Your task to perform on an android device: turn off wifi Image 0: 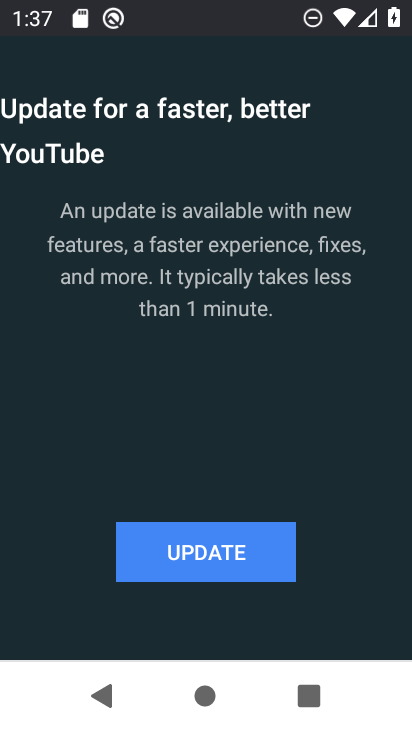
Step 0: press home button
Your task to perform on an android device: turn off wifi Image 1: 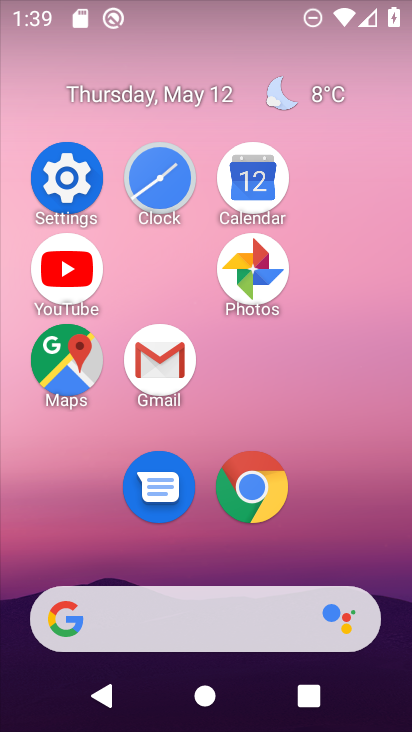
Step 1: click (66, 160)
Your task to perform on an android device: turn off wifi Image 2: 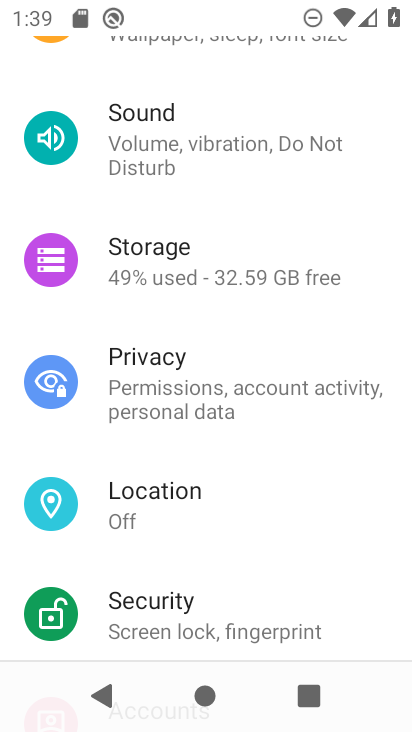
Step 2: drag from (308, 174) to (232, 604)
Your task to perform on an android device: turn off wifi Image 3: 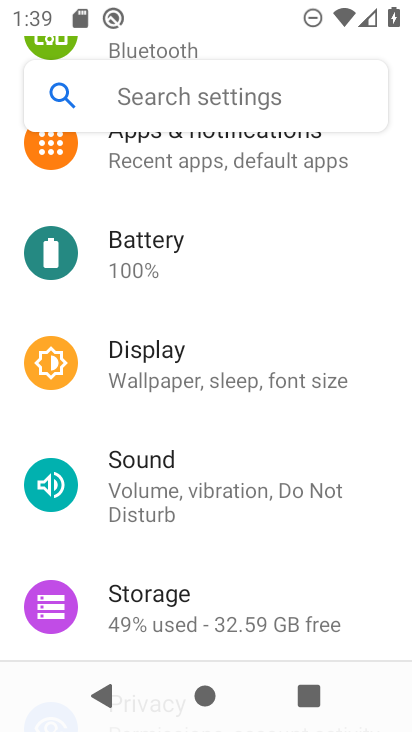
Step 3: drag from (274, 216) to (213, 552)
Your task to perform on an android device: turn off wifi Image 4: 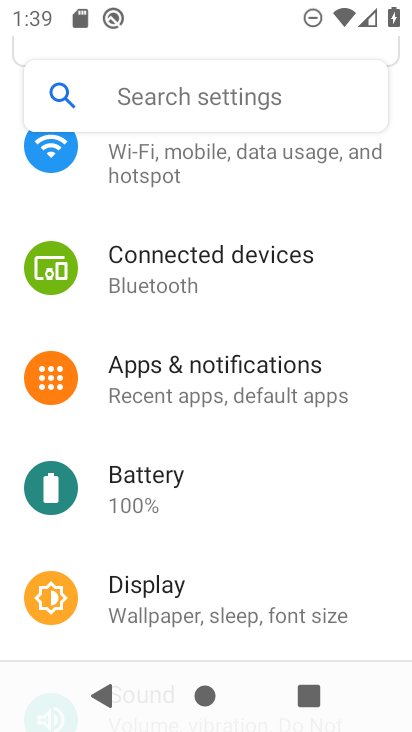
Step 4: click (261, 170)
Your task to perform on an android device: turn off wifi Image 5: 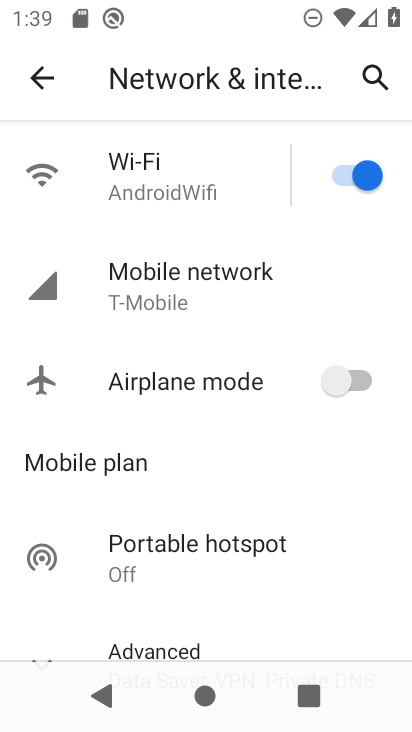
Step 5: click (353, 176)
Your task to perform on an android device: turn off wifi Image 6: 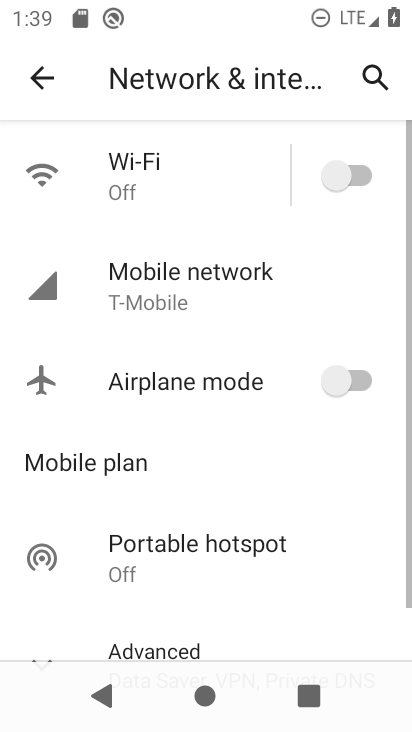
Step 6: task complete